Your task to perform on an android device: Open accessibility settings Image 0: 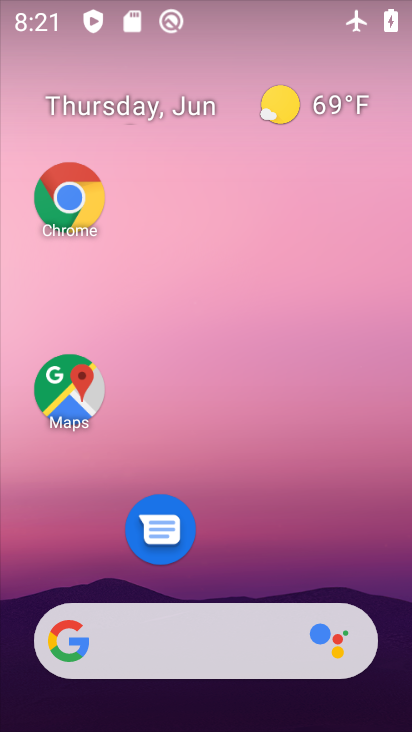
Step 0: drag from (201, 580) to (212, 32)
Your task to perform on an android device: Open accessibility settings Image 1: 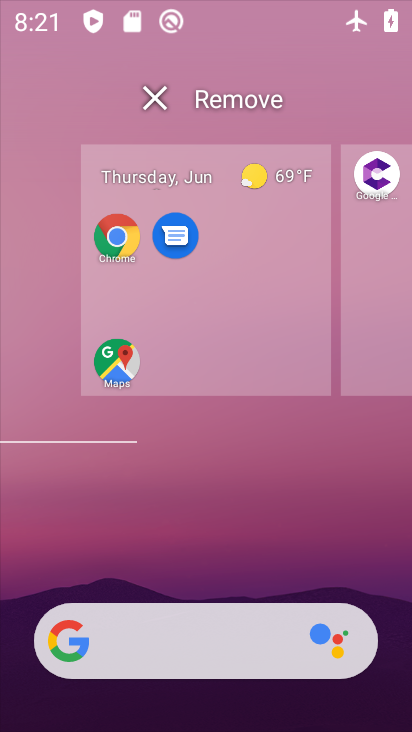
Step 1: click (276, 543)
Your task to perform on an android device: Open accessibility settings Image 2: 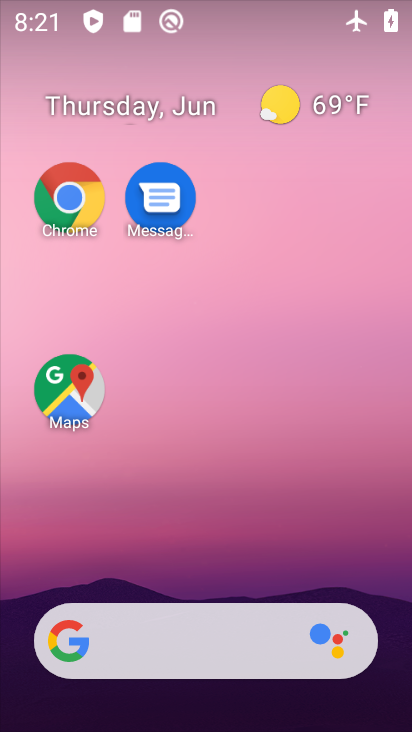
Step 2: drag from (276, 543) to (167, 0)
Your task to perform on an android device: Open accessibility settings Image 3: 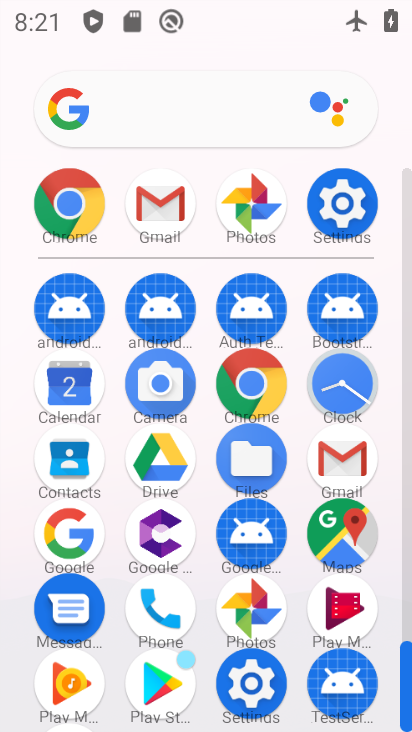
Step 3: click (338, 205)
Your task to perform on an android device: Open accessibility settings Image 4: 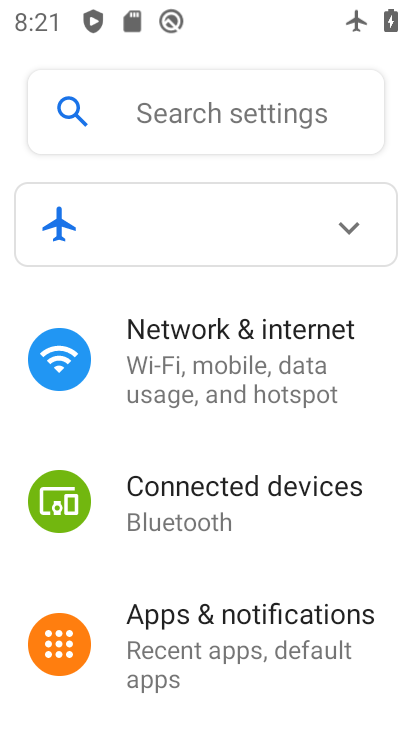
Step 4: drag from (289, 579) to (266, 98)
Your task to perform on an android device: Open accessibility settings Image 5: 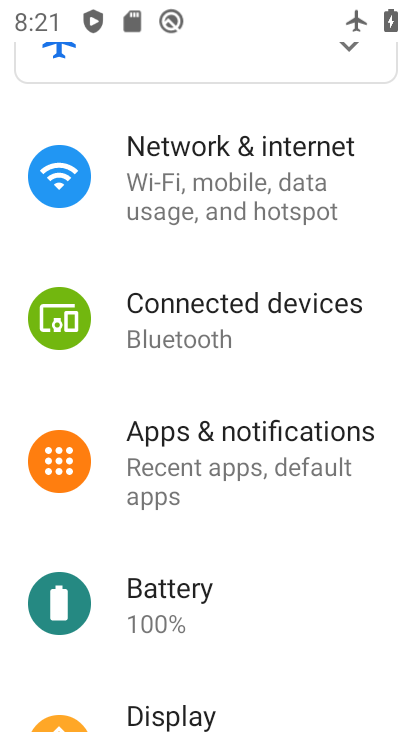
Step 5: drag from (261, 610) to (196, 240)
Your task to perform on an android device: Open accessibility settings Image 6: 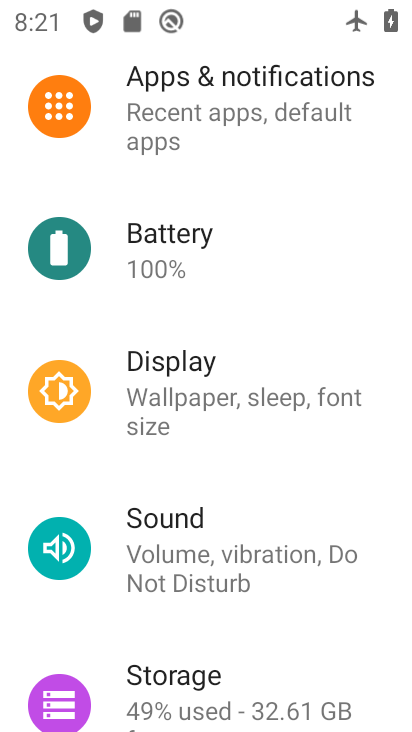
Step 6: drag from (200, 631) to (157, 30)
Your task to perform on an android device: Open accessibility settings Image 7: 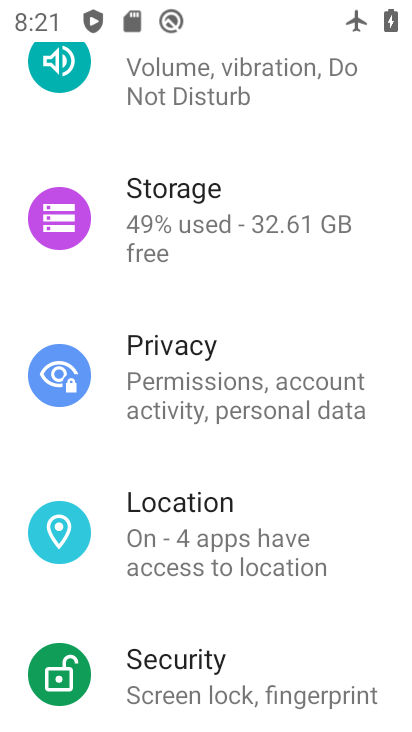
Step 7: drag from (177, 598) to (51, 45)
Your task to perform on an android device: Open accessibility settings Image 8: 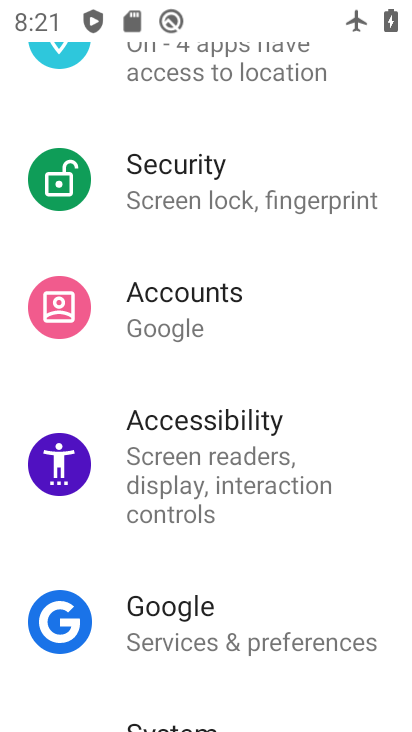
Step 8: click (156, 390)
Your task to perform on an android device: Open accessibility settings Image 9: 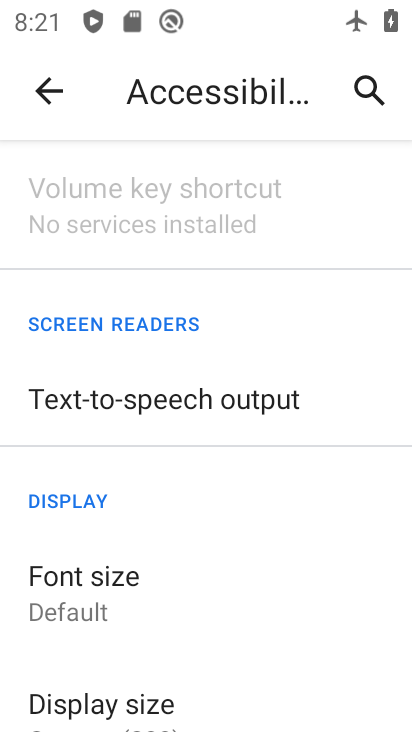
Step 9: task complete